Your task to perform on an android device: Open Reddit.com Image 0: 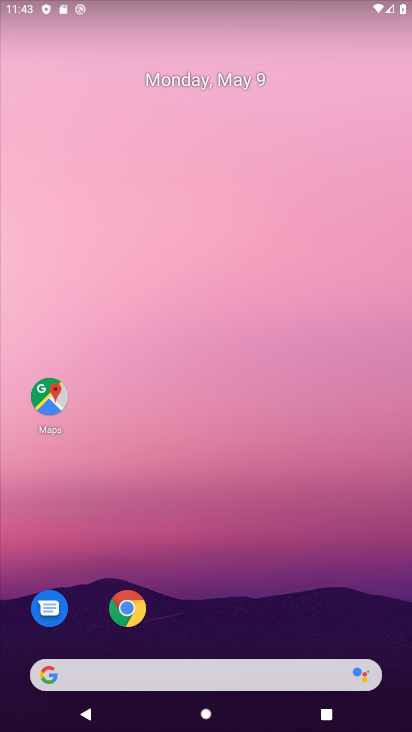
Step 0: click (117, 601)
Your task to perform on an android device: Open Reddit.com Image 1: 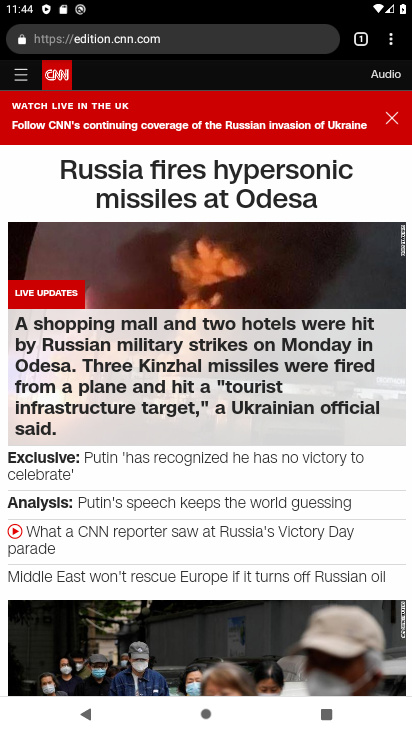
Step 1: click (362, 30)
Your task to perform on an android device: Open Reddit.com Image 2: 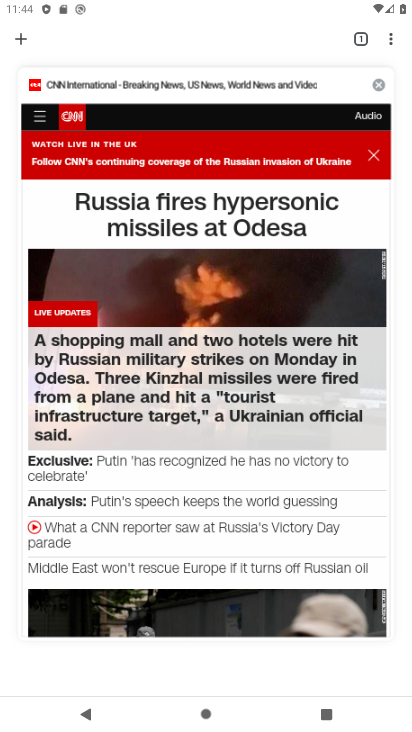
Step 2: click (28, 39)
Your task to perform on an android device: Open Reddit.com Image 3: 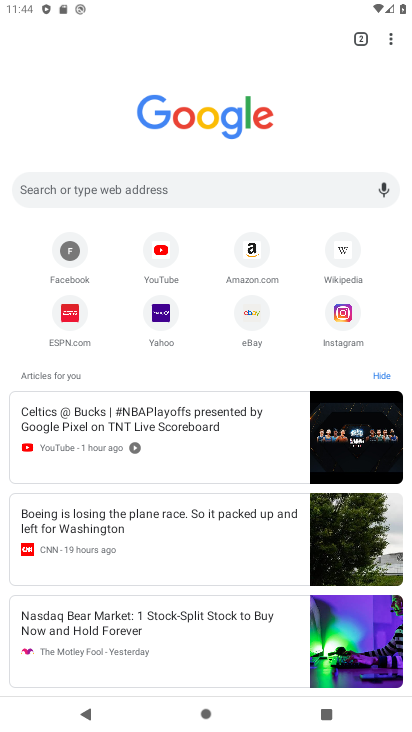
Step 3: click (105, 193)
Your task to perform on an android device: Open Reddit.com Image 4: 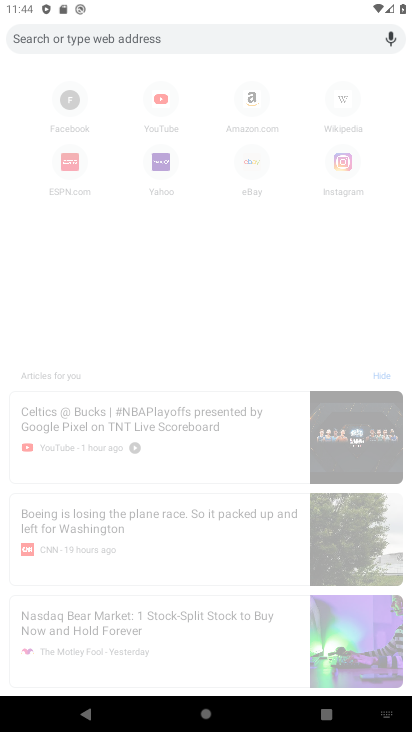
Step 4: type "reddiit"
Your task to perform on an android device: Open Reddit.com Image 5: 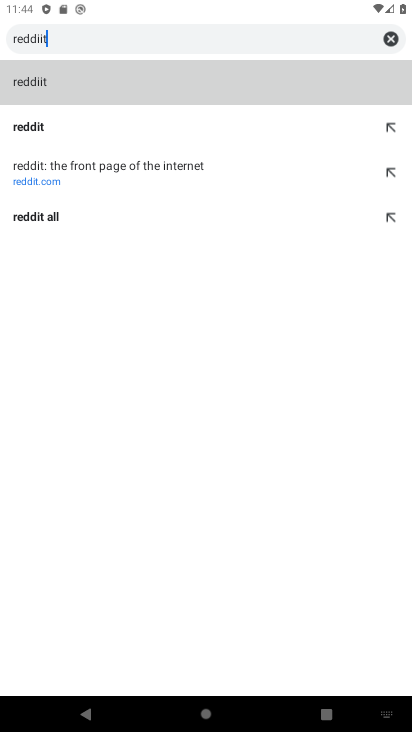
Step 5: click (64, 166)
Your task to perform on an android device: Open Reddit.com Image 6: 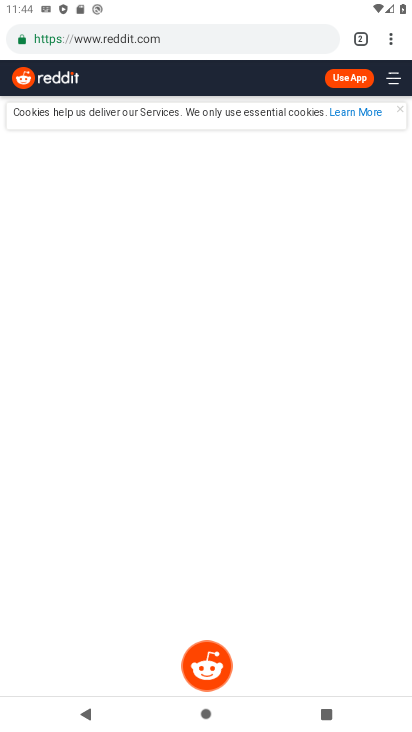
Step 6: task complete